Your task to perform on an android device: see creations saved in the google photos Image 0: 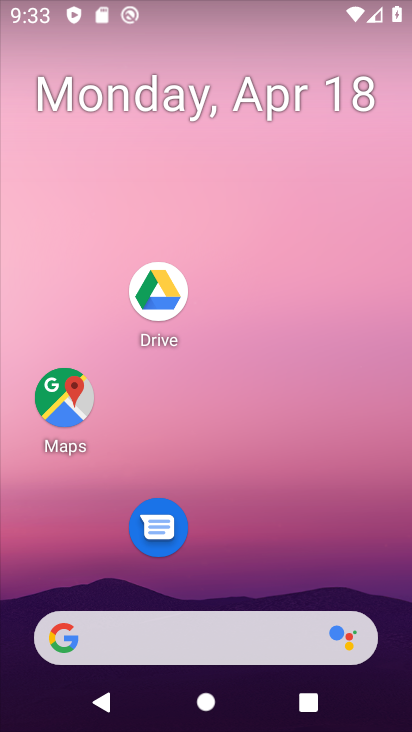
Step 0: drag from (299, 530) to (210, 0)
Your task to perform on an android device: see creations saved in the google photos Image 1: 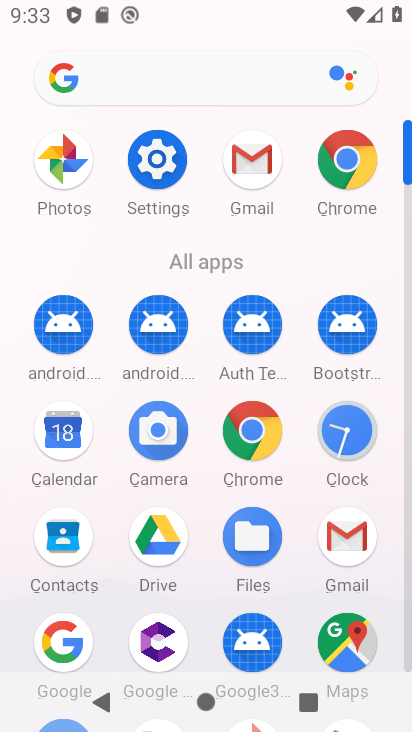
Step 1: click (76, 168)
Your task to perform on an android device: see creations saved in the google photos Image 2: 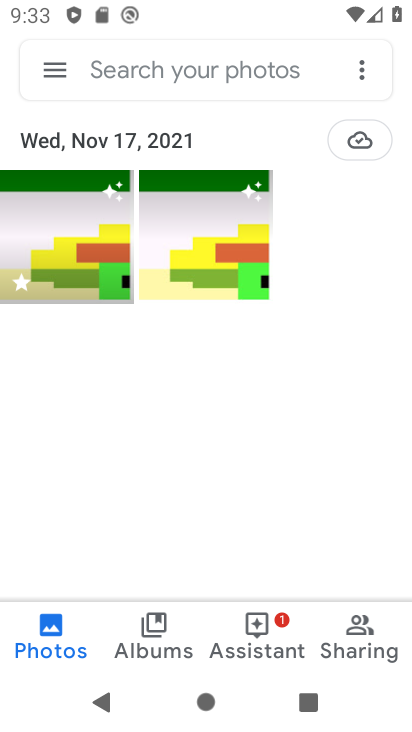
Step 2: click (183, 644)
Your task to perform on an android device: see creations saved in the google photos Image 3: 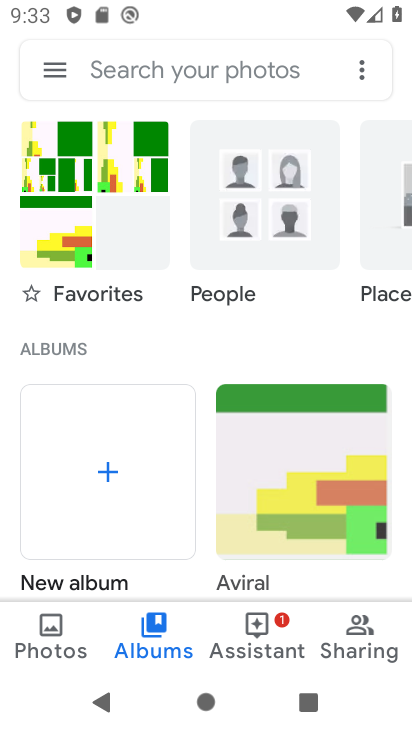
Step 3: task complete